Your task to perform on an android device: toggle improve location accuracy Image 0: 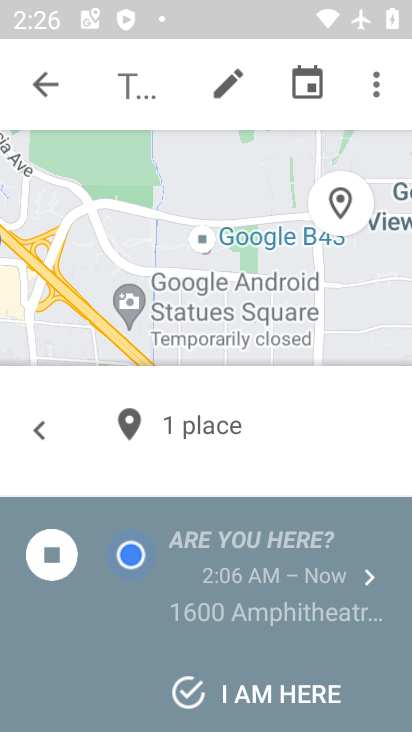
Step 0: press home button
Your task to perform on an android device: toggle improve location accuracy Image 1: 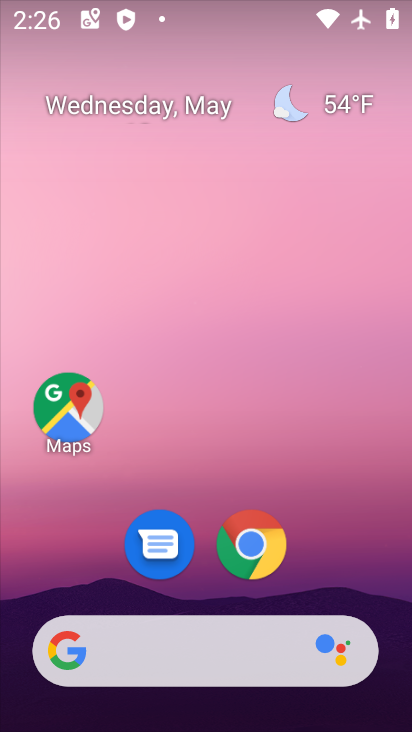
Step 1: drag from (341, 550) to (276, 113)
Your task to perform on an android device: toggle improve location accuracy Image 2: 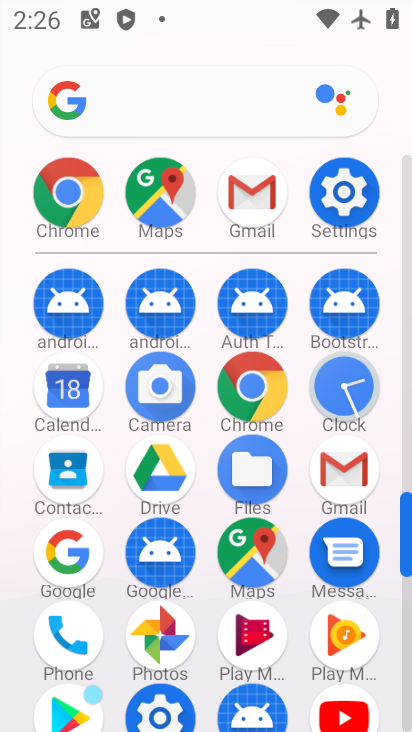
Step 2: click (331, 197)
Your task to perform on an android device: toggle improve location accuracy Image 3: 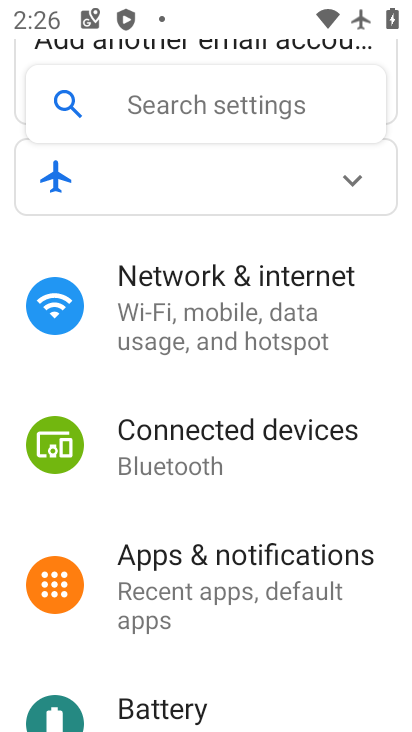
Step 3: drag from (226, 586) to (258, 225)
Your task to perform on an android device: toggle improve location accuracy Image 4: 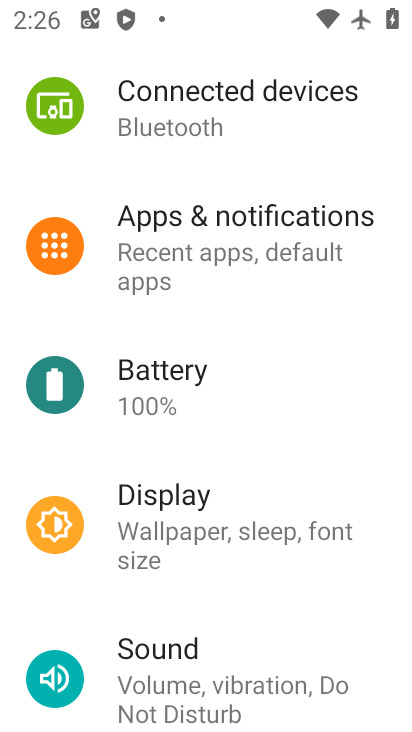
Step 4: drag from (217, 663) to (260, 443)
Your task to perform on an android device: toggle improve location accuracy Image 5: 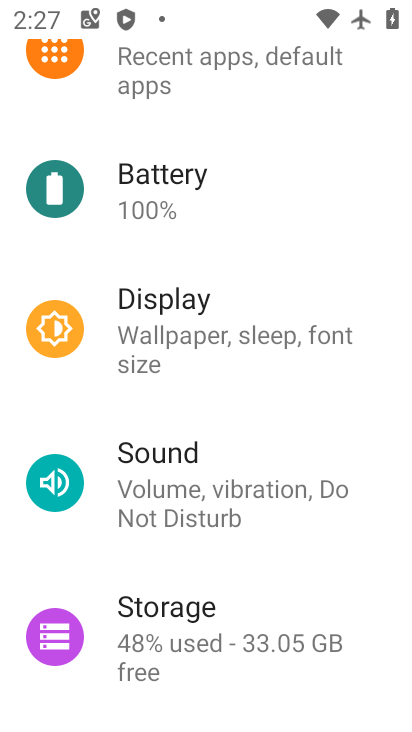
Step 5: drag from (219, 641) to (239, 359)
Your task to perform on an android device: toggle improve location accuracy Image 6: 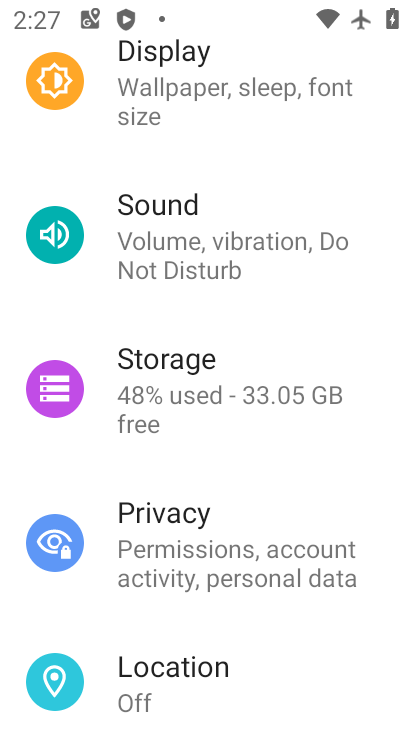
Step 6: click (198, 662)
Your task to perform on an android device: toggle improve location accuracy Image 7: 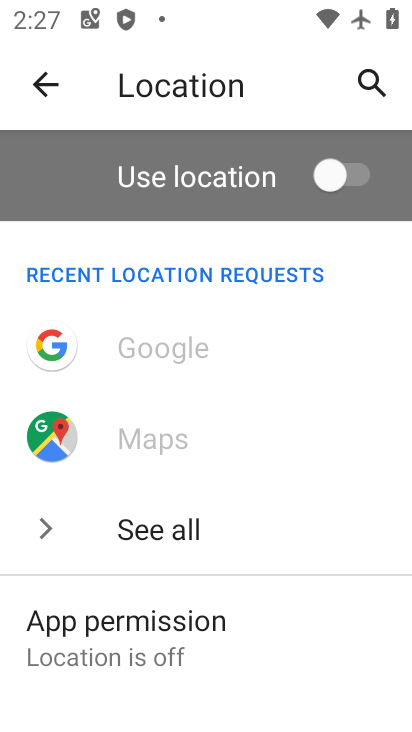
Step 7: drag from (197, 662) to (229, 39)
Your task to perform on an android device: toggle improve location accuracy Image 8: 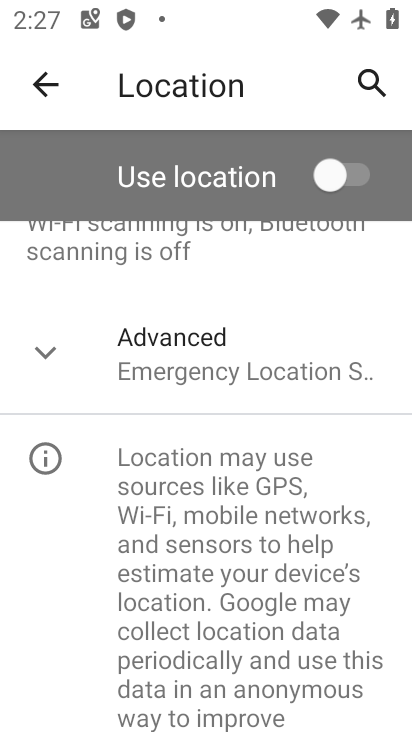
Step 8: click (204, 327)
Your task to perform on an android device: toggle improve location accuracy Image 9: 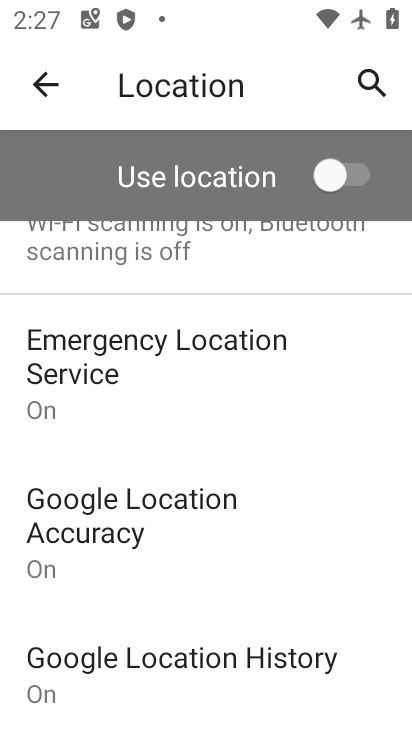
Step 9: click (194, 547)
Your task to perform on an android device: toggle improve location accuracy Image 10: 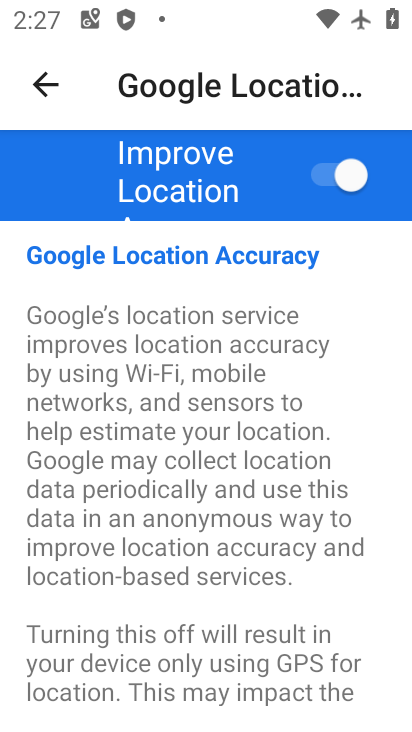
Step 10: click (310, 176)
Your task to perform on an android device: toggle improve location accuracy Image 11: 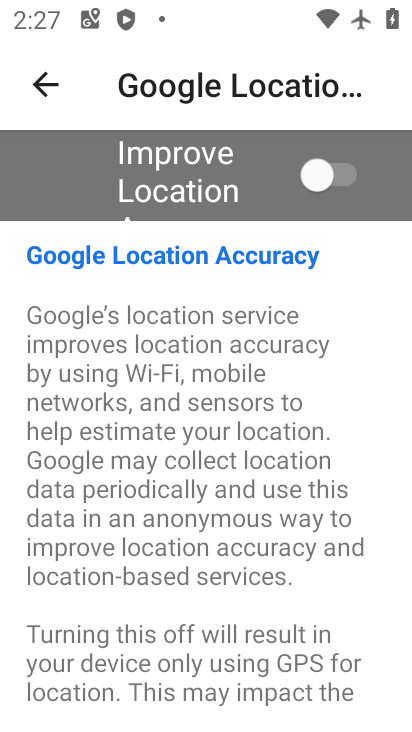
Step 11: task complete